Your task to perform on an android device: Open Amazon Image 0: 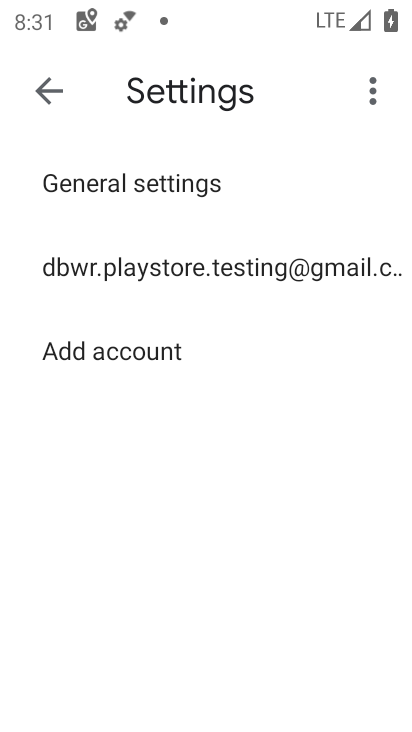
Step 0: press home button
Your task to perform on an android device: Open Amazon Image 1: 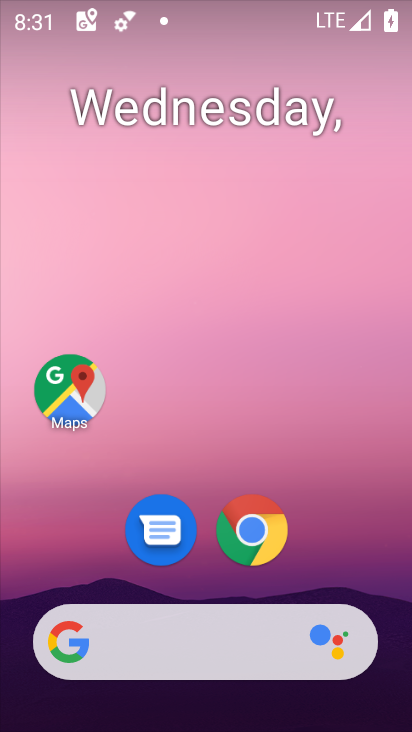
Step 1: drag from (385, 618) to (272, 64)
Your task to perform on an android device: Open Amazon Image 2: 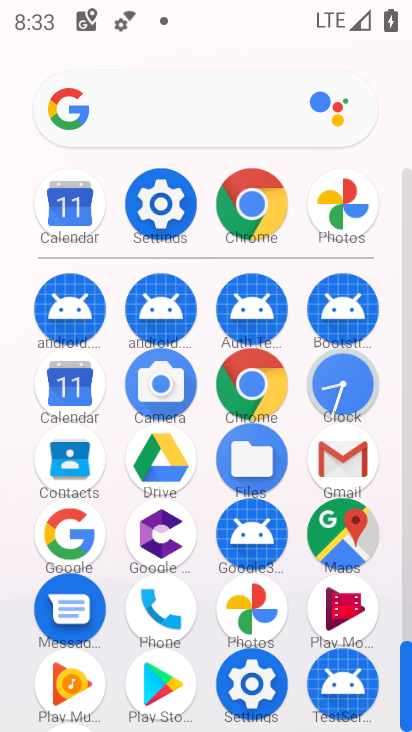
Step 2: click (264, 372)
Your task to perform on an android device: Open Amazon Image 3: 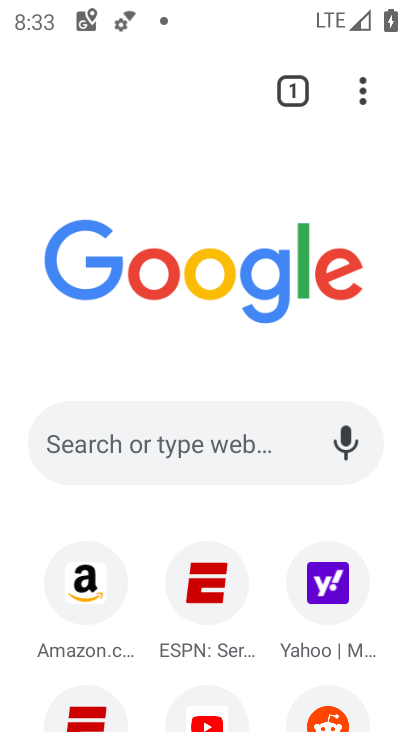
Step 3: click (115, 609)
Your task to perform on an android device: Open Amazon Image 4: 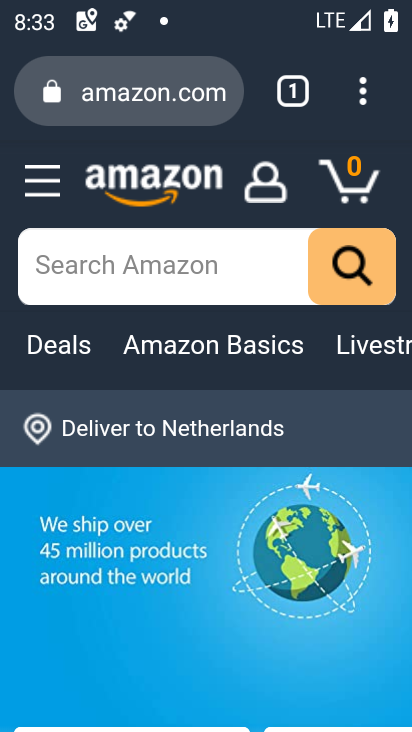
Step 4: task complete